Your task to perform on an android device: empty trash in the gmail app Image 0: 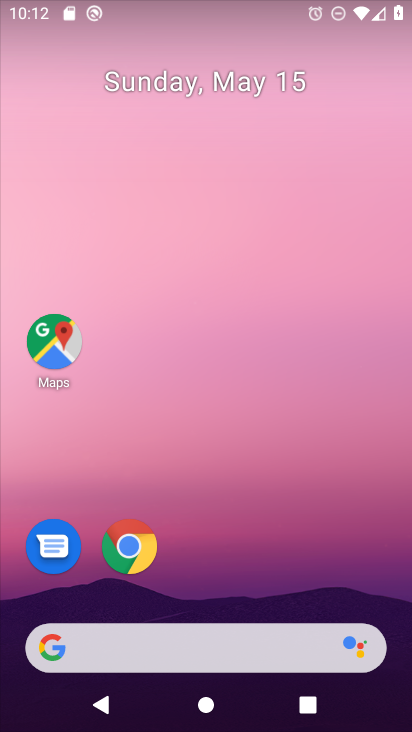
Step 0: drag from (287, 449) to (312, 75)
Your task to perform on an android device: empty trash in the gmail app Image 1: 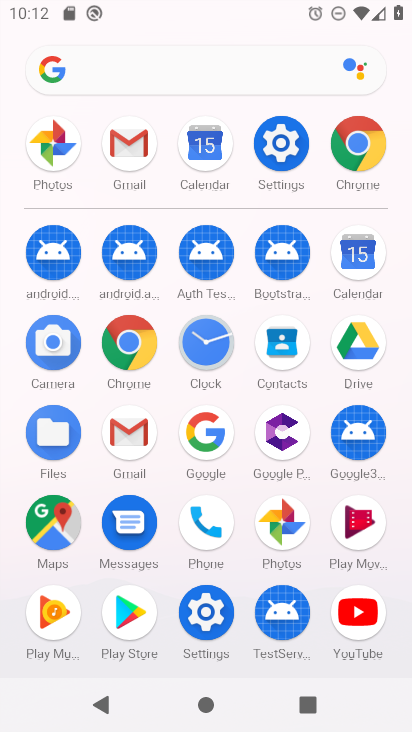
Step 1: click (144, 157)
Your task to perform on an android device: empty trash in the gmail app Image 2: 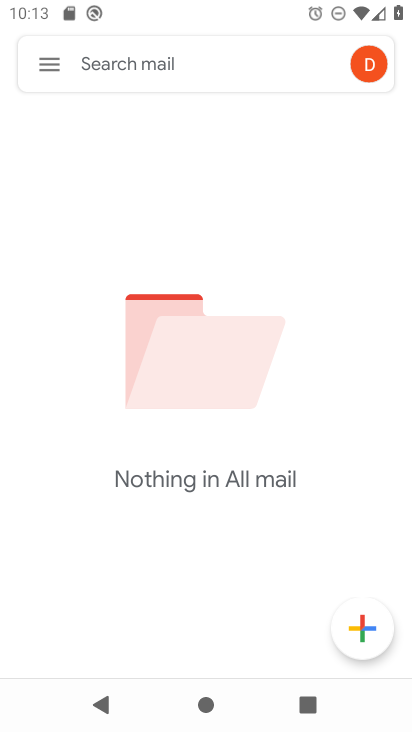
Step 2: click (54, 51)
Your task to perform on an android device: empty trash in the gmail app Image 3: 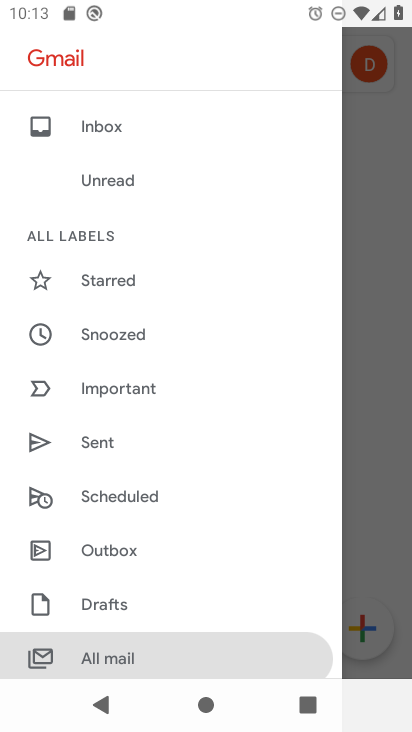
Step 3: drag from (124, 499) to (209, 150)
Your task to perform on an android device: empty trash in the gmail app Image 4: 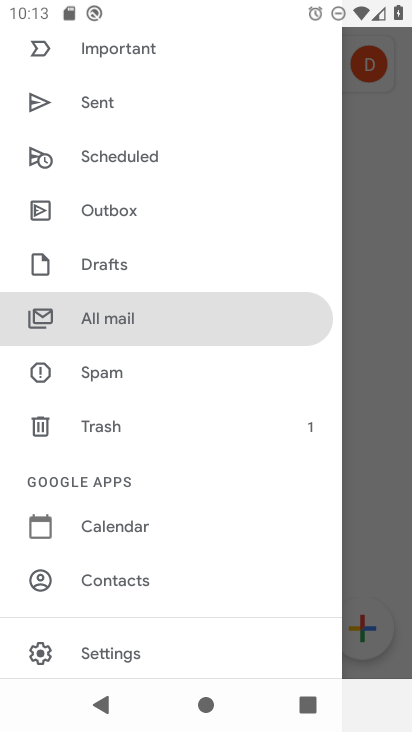
Step 4: click (97, 426)
Your task to perform on an android device: empty trash in the gmail app Image 5: 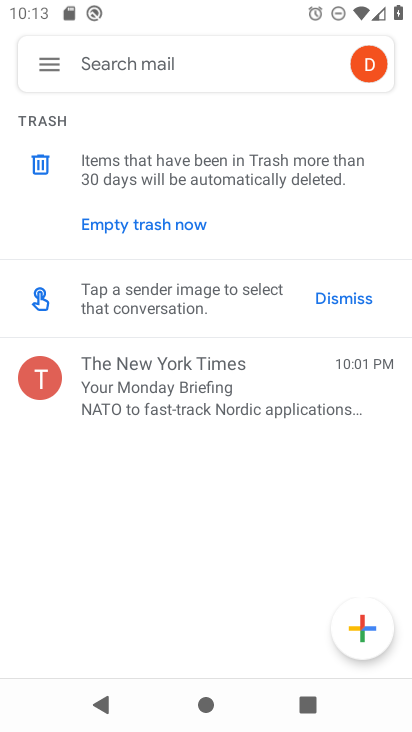
Step 5: click (48, 162)
Your task to perform on an android device: empty trash in the gmail app Image 6: 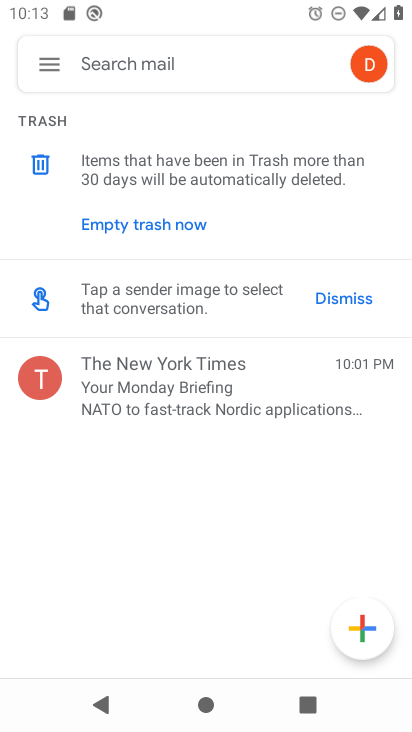
Step 6: click (41, 162)
Your task to perform on an android device: empty trash in the gmail app Image 7: 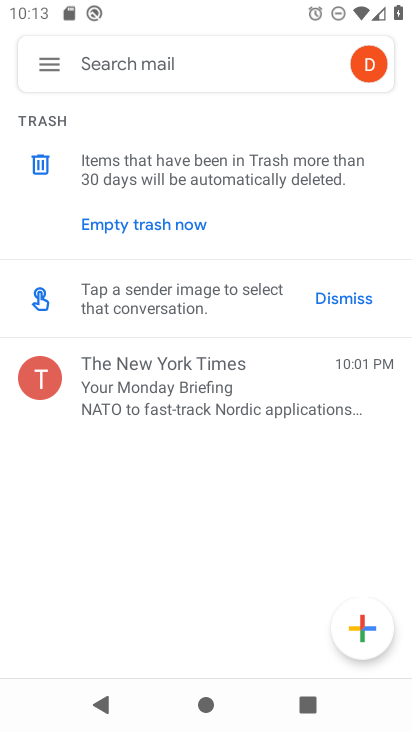
Step 7: click (41, 162)
Your task to perform on an android device: empty trash in the gmail app Image 8: 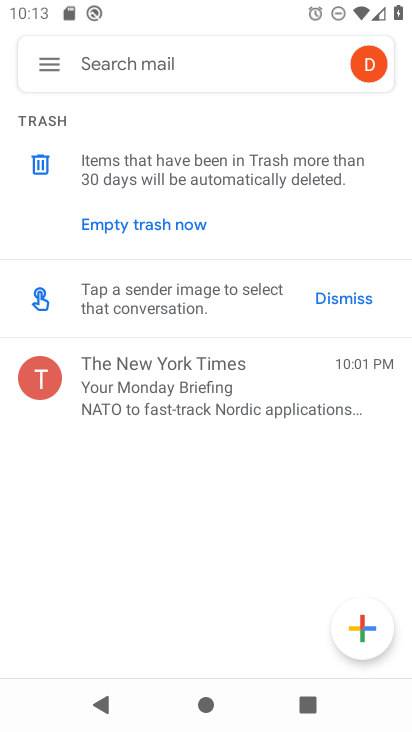
Step 8: click (41, 162)
Your task to perform on an android device: empty trash in the gmail app Image 9: 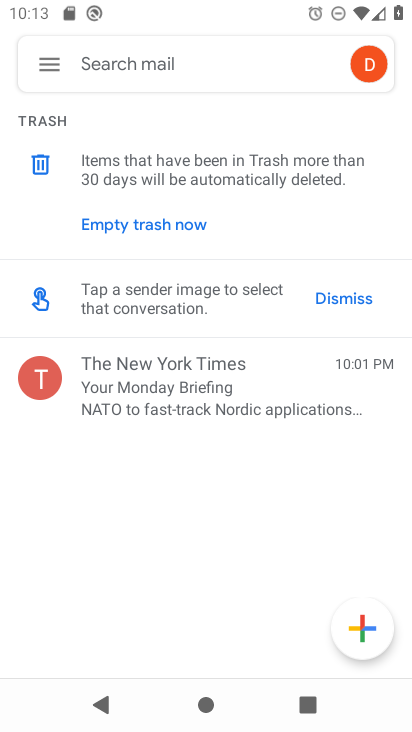
Step 9: click (41, 162)
Your task to perform on an android device: empty trash in the gmail app Image 10: 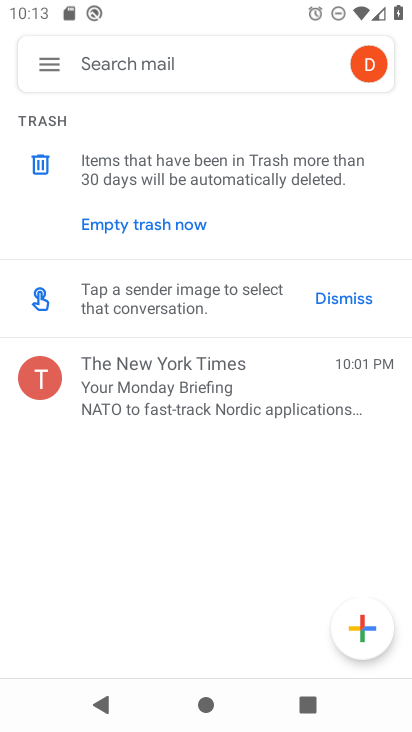
Step 10: click (41, 162)
Your task to perform on an android device: empty trash in the gmail app Image 11: 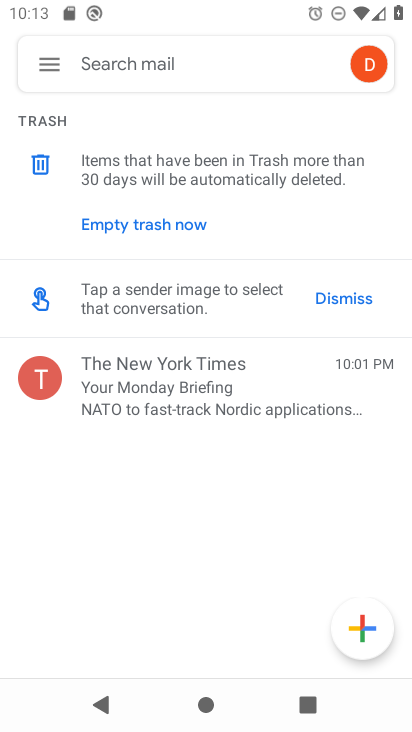
Step 11: click (41, 162)
Your task to perform on an android device: empty trash in the gmail app Image 12: 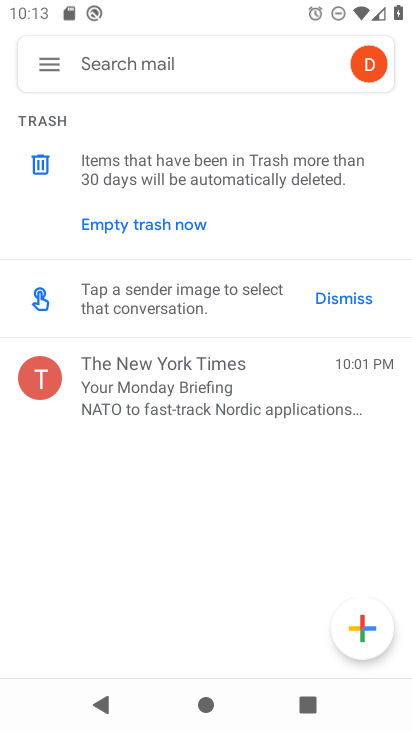
Step 12: click (132, 222)
Your task to perform on an android device: empty trash in the gmail app Image 13: 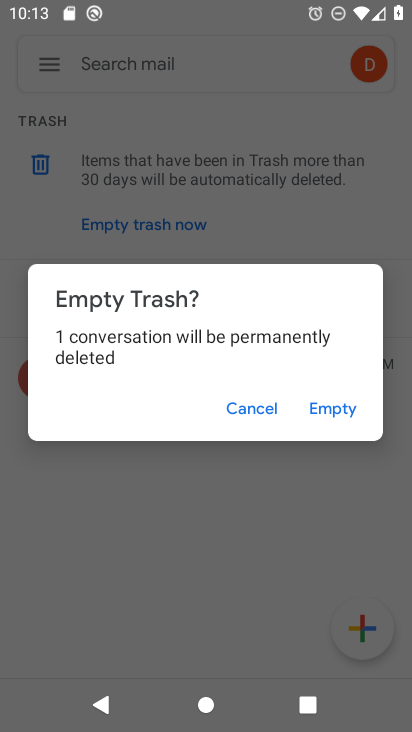
Step 13: click (333, 410)
Your task to perform on an android device: empty trash in the gmail app Image 14: 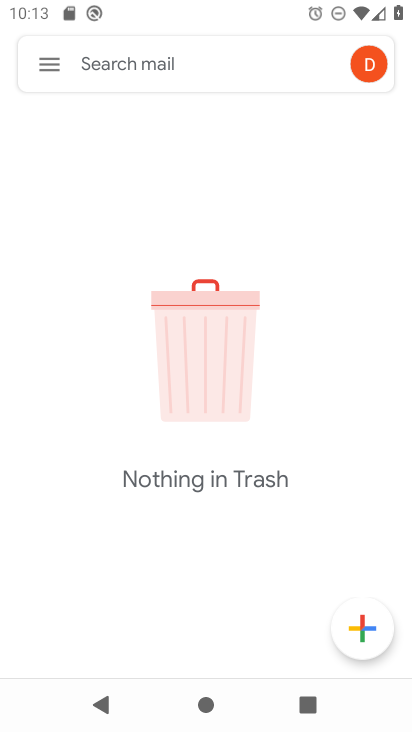
Step 14: task complete